Your task to perform on an android device: open sync settings in chrome Image 0: 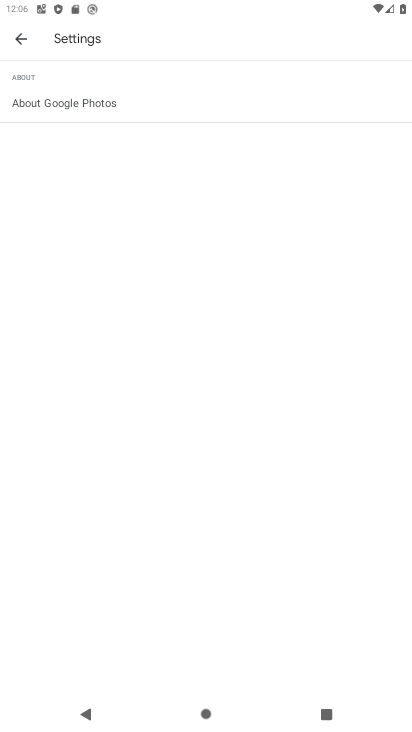
Step 0: press home button
Your task to perform on an android device: open sync settings in chrome Image 1: 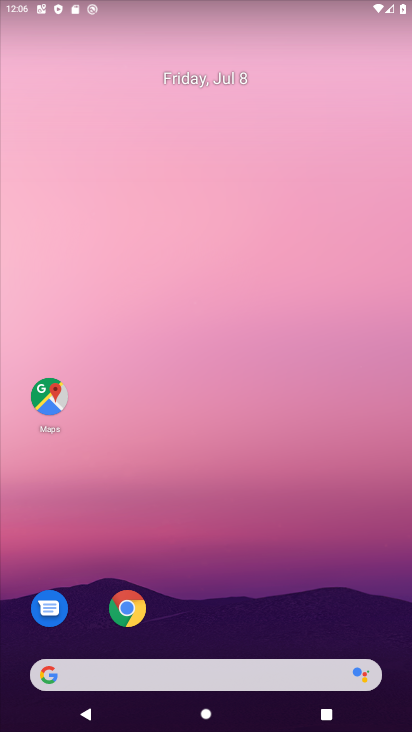
Step 1: drag from (319, 638) to (353, 433)
Your task to perform on an android device: open sync settings in chrome Image 2: 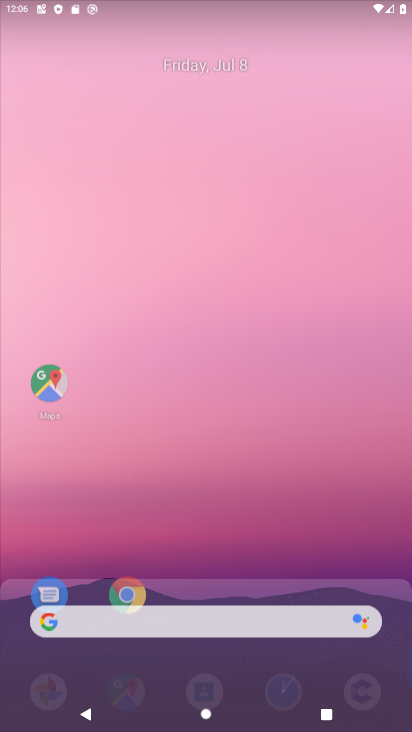
Step 2: drag from (198, 324) to (216, 231)
Your task to perform on an android device: open sync settings in chrome Image 3: 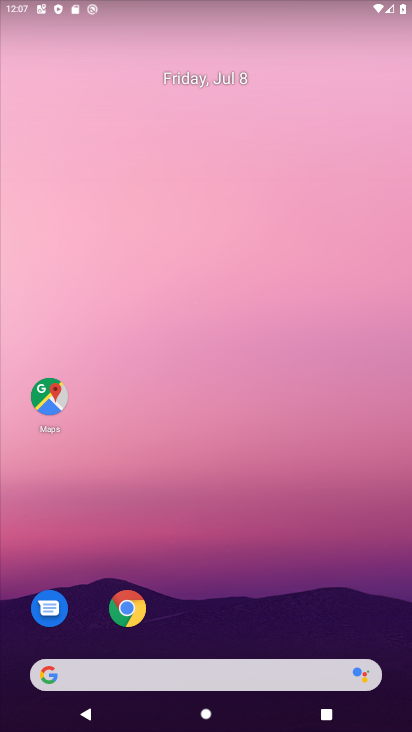
Step 3: drag from (284, 523) to (71, 307)
Your task to perform on an android device: open sync settings in chrome Image 4: 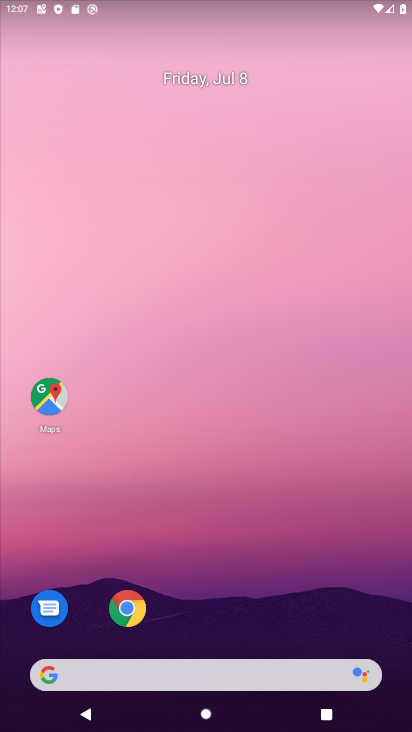
Step 4: drag from (297, 637) to (166, 11)
Your task to perform on an android device: open sync settings in chrome Image 5: 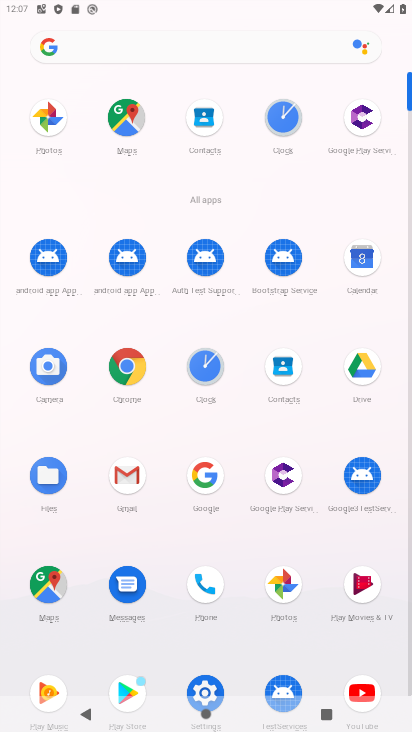
Step 5: click (132, 353)
Your task to perform on an android device: open sync settings in chrome Image 6: 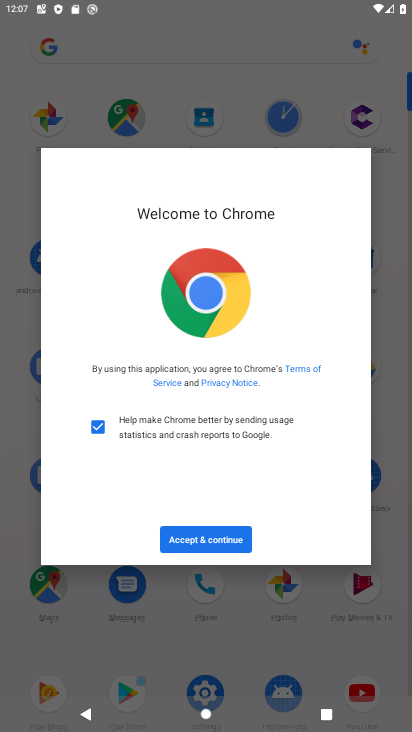
Step 6: click (195, 538)
Your task to perform on an android device: open sync settings in chrome Image 7: 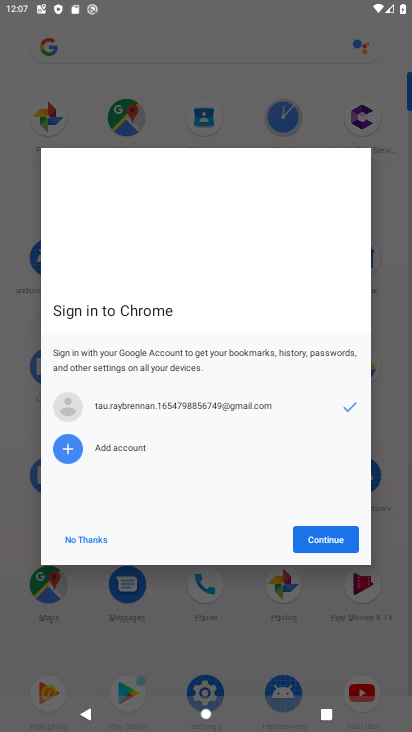
Step 7: click (331, 548)
Your task to perform on an android device: open sync settings in chrome Image 8: 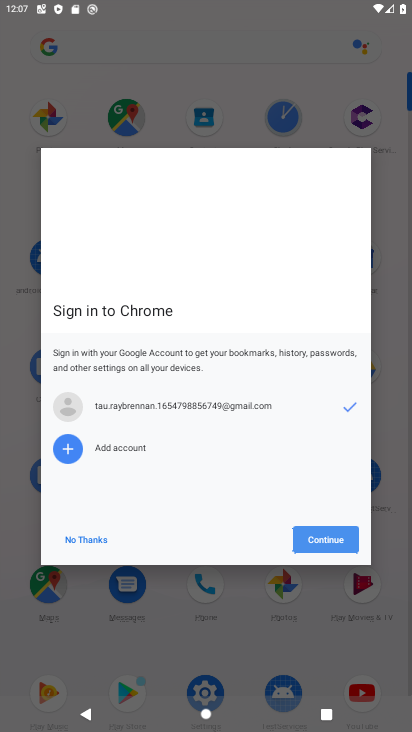
Step 8: click (316, 538)
Your task to perform on an android device: open sync settings in chrome Image 9: 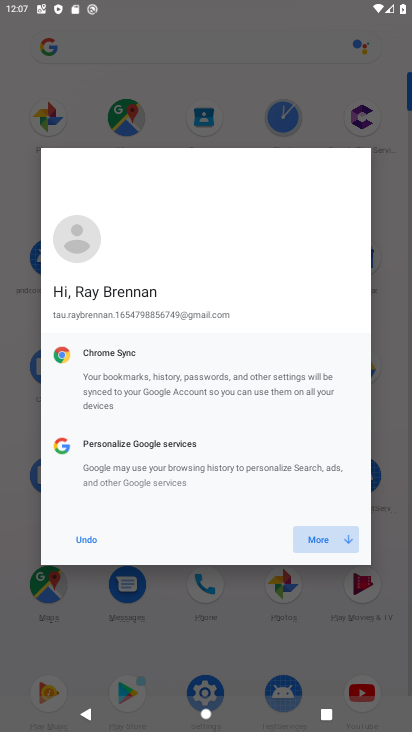
Step 9: click (316, 538)
Your task to perform on an android device: open sync settings in chrome Image 10: 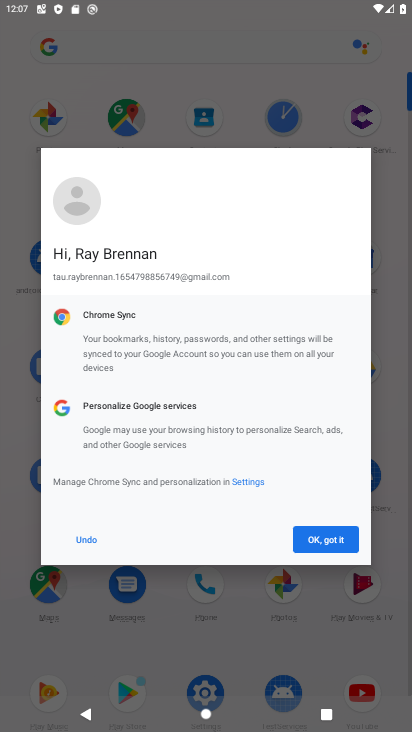
Step 10: click (316, 541)
Your task to perform on an android device: open sync settings in chrome Image 11: 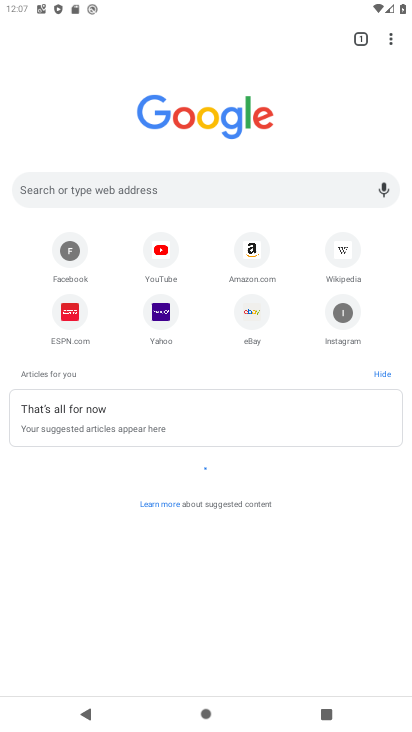
Step 11: drag from (408, 33) to (257, 316)
Your task to perform on an android device: open sync settings in chrome Image 12: 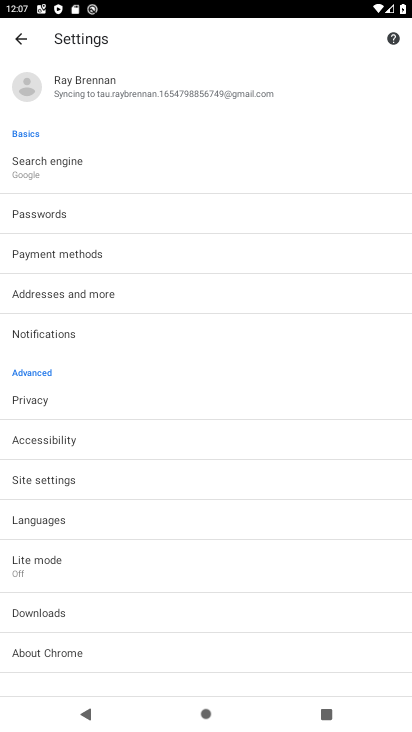
Step 12: click (68, 89)
Your task to perform on an android device: open sync settings in chrome Image 13: 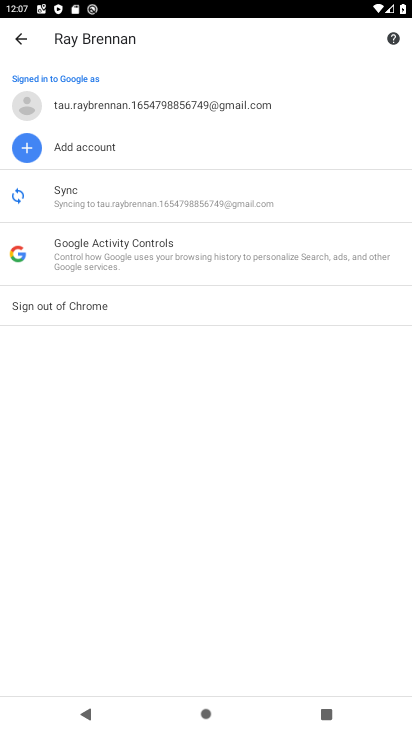
Step 13: click (105, 201)
Your task to perform on an android device: open sync settings in chrome Image 14: 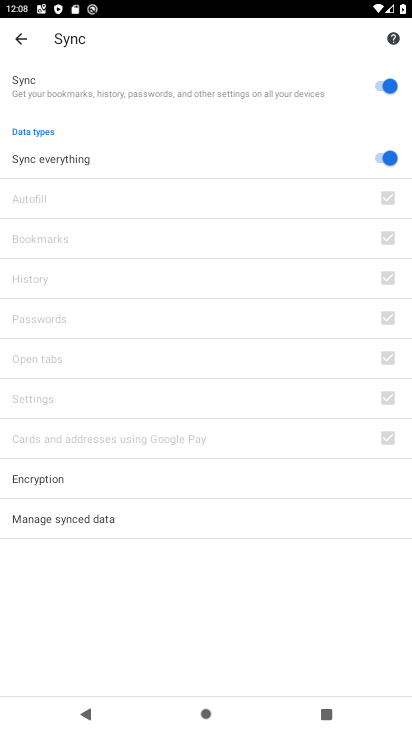
Step 14: task complete